Your task to perform on an android device: Open the stopwatch Image 0: 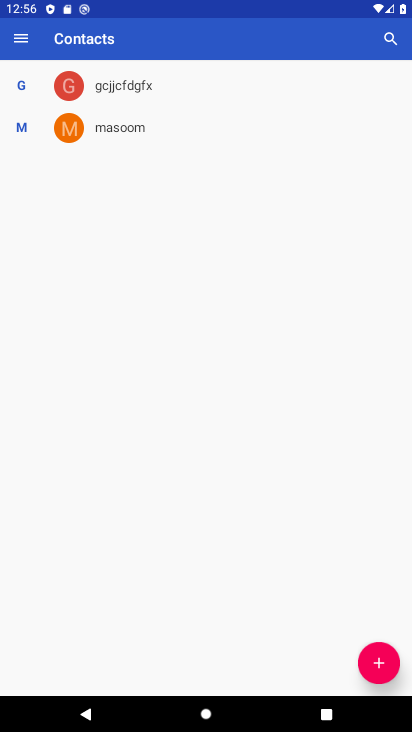
Step 0: press home button
Your task to perform on an android device: Open the stopwatch Image 1: 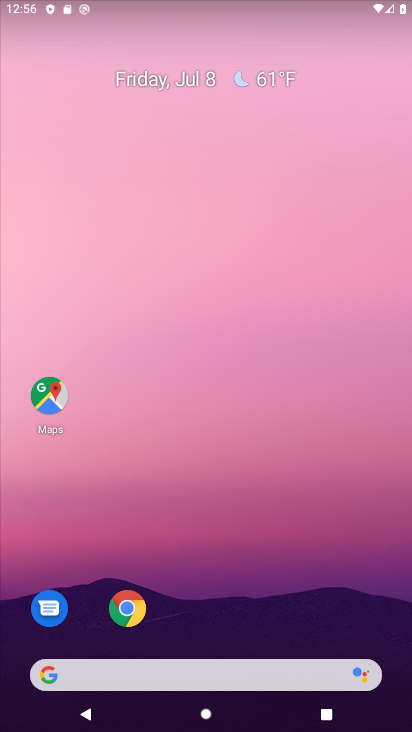
Step 1: drag from (230, 602) to (301, 105)
Your task to perform on an android device: Open the stopwatch Image 2: 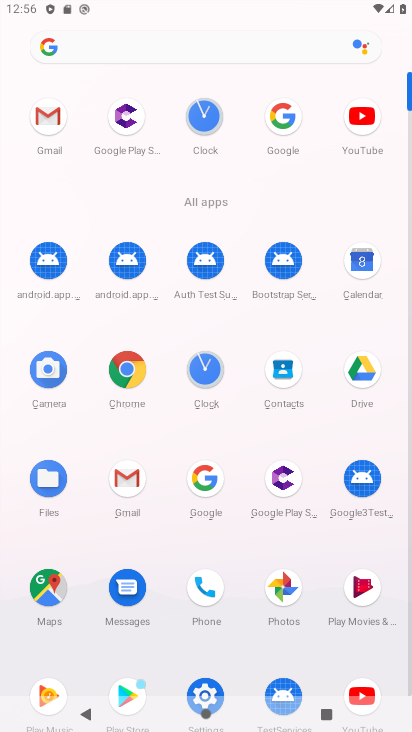
Step 2: click (201, 111)
Your task to perform on an android device: Open the stopwatch Image 3: 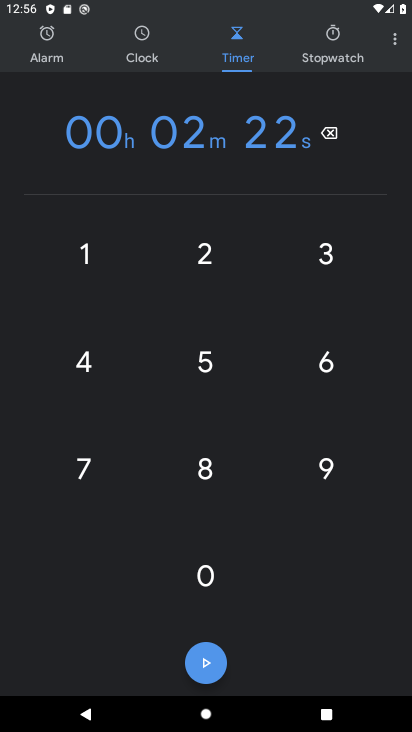
Step 3: click (343, 47)
Your task to perform on an android device: Open the stopwatch Image 4: 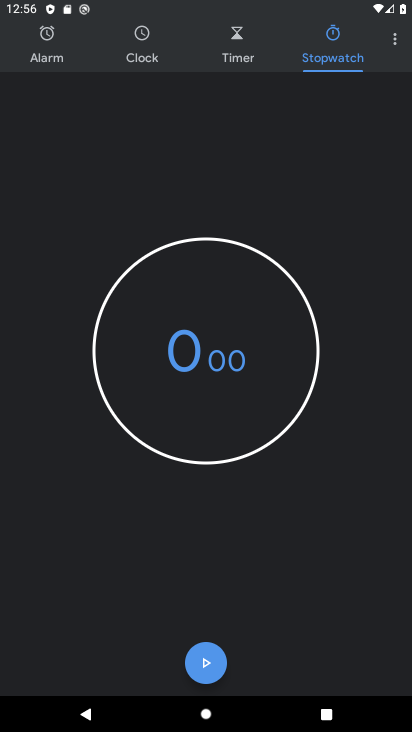
Step 4: click (206, 663)
Your task to perform on an android device: Open the stopwatch Image 5: 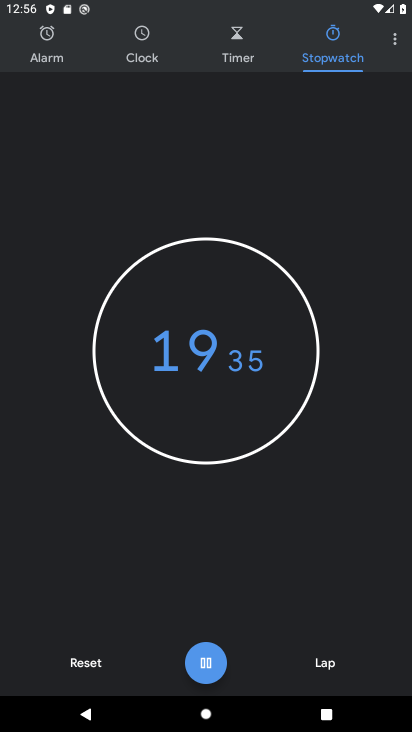
Step 5: task complete